Your task to perform on an android device: Open the phone app and click the voicemail tab. Image 0: 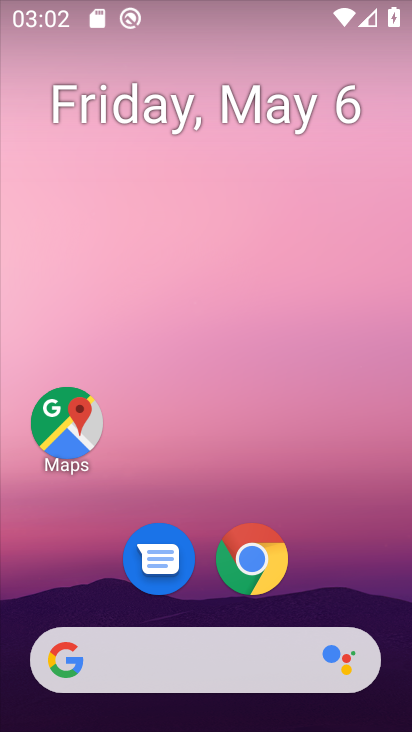
Step 0: drag from (318, 581) to (406, 301)
Your task to perform on an android device: Open the phone app and click the voicemail tab. Image 1: 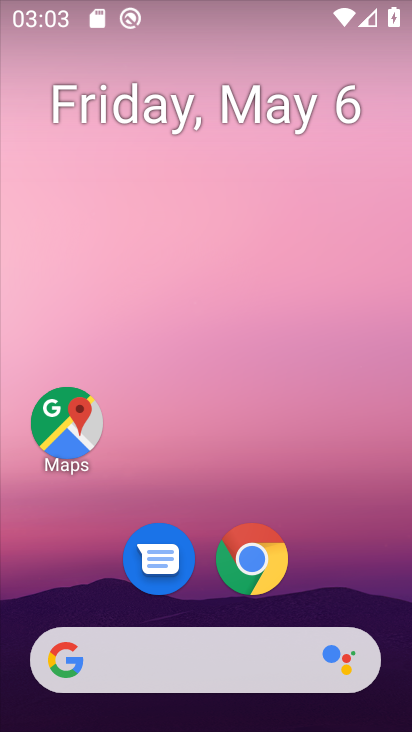
Step 1: drag from (289, 623) to (338, 67)
Your task to perform on an android device: Open the phone app and click the voicemail tab. Image 2: 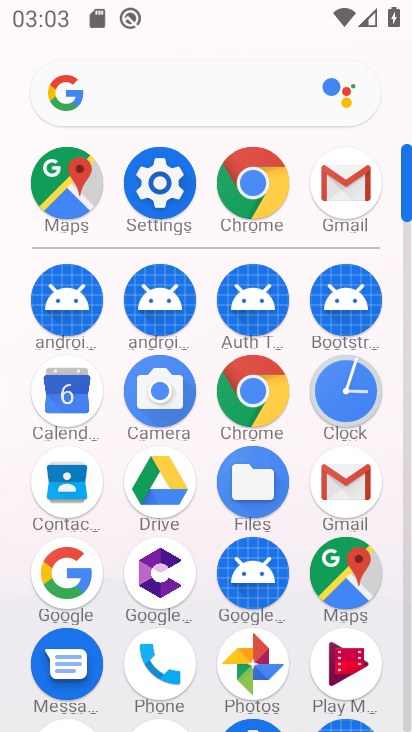
Step 2: click (139, 663)
Your task to perform on an android device: Open the phone app and click the voicemail tab. Image 3: 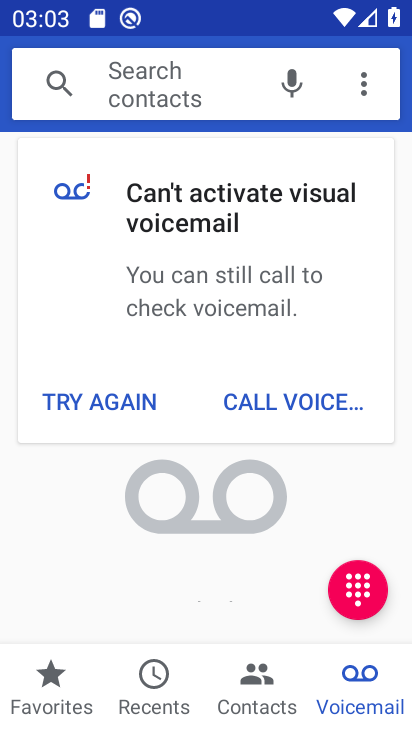
Step 3: task complete